Your task to perform on an android device: manage bookmarks in the chrome app Image 0: 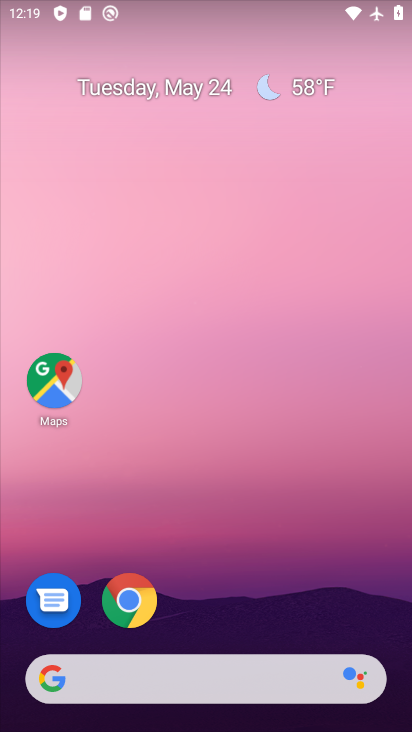
Step 0: drag from (313, 611) to (251, 170)
Your task to perform on an android device: manage bookmarks in the chrome app Image 1: 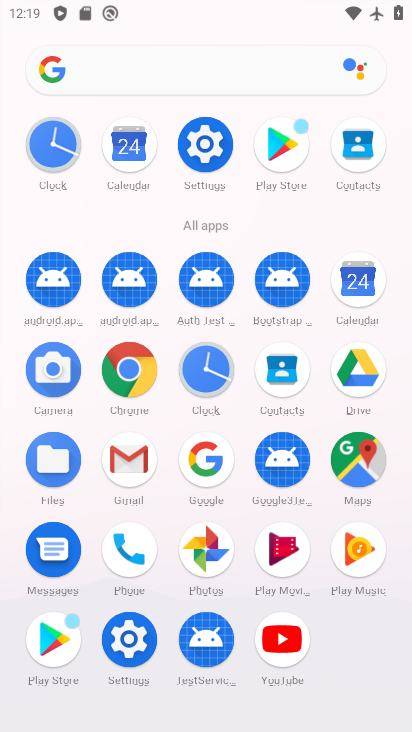
Step 1: click (120, 371)
Your task to perform on an android device: manage bookmarks in the chrome app Image 2: 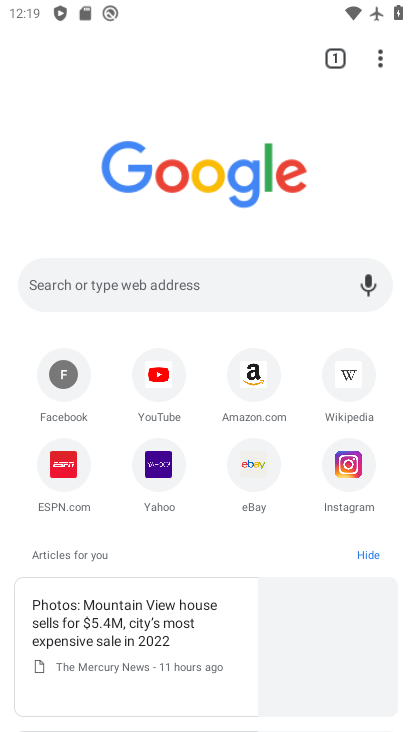
Step 2: click (374, 54)
Your task to perform on an android device: manage bookmarks in the chrome app Image 3: 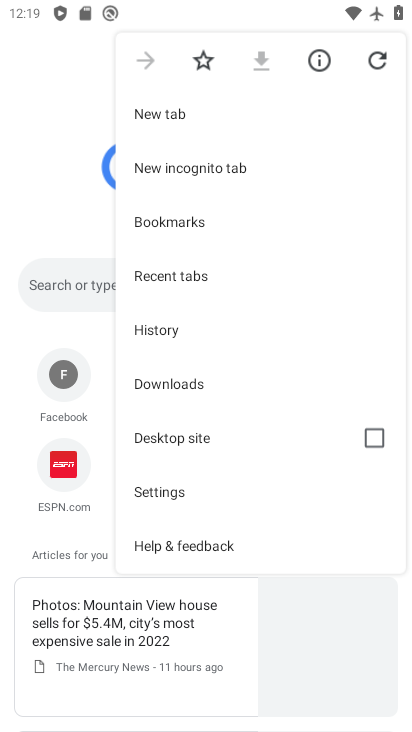
Step 3: click (217, 217)
Your task to perform on an android device: manage bookmarks in the chrome app Image 4: 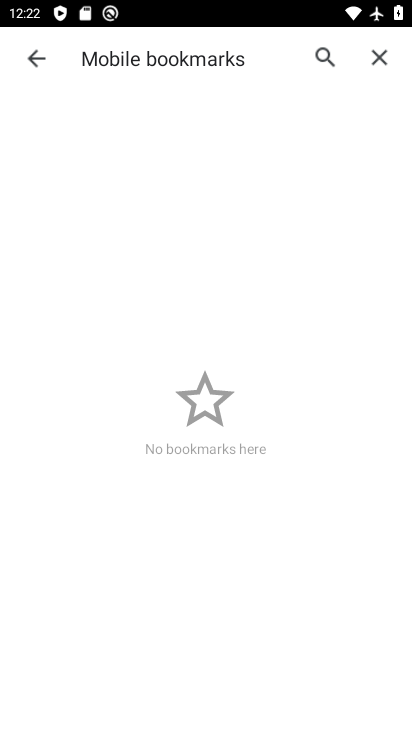
Step 4: task complete